Your task to perform on an android device: What is the news today? Image 0: 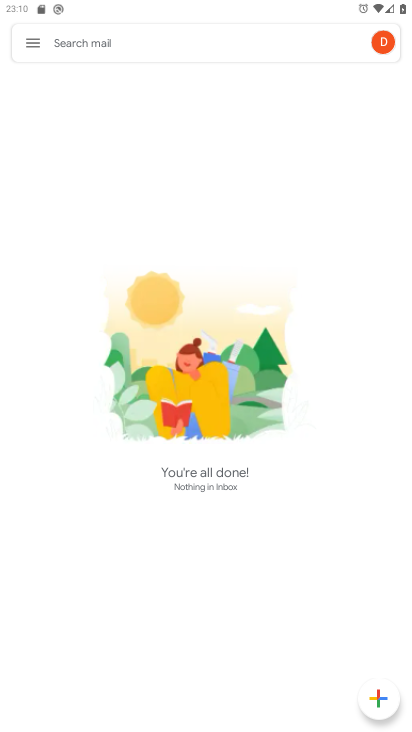
Step 0: press home button
Your task to perform on an android device: What is the news today? Image 1: 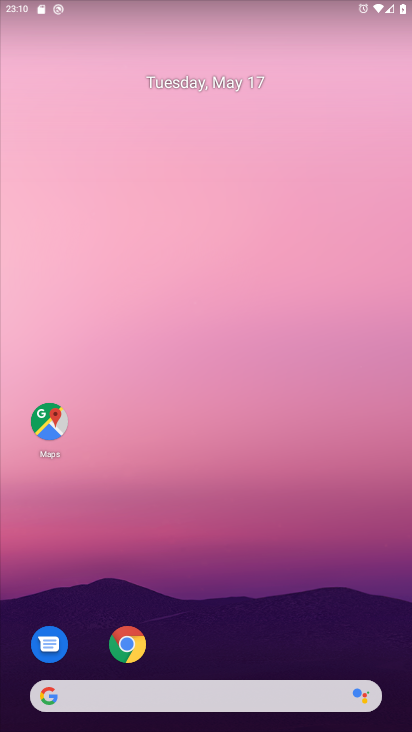
Step 1: task complete